Your task to perform on an android device: turn off wifi Image 0: 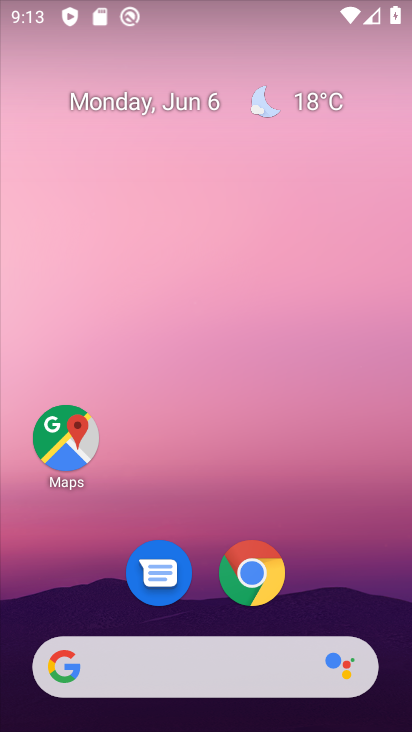
Step 0: click (260, 584)
Your task to perform on an android device: turn off wifi Image 1: 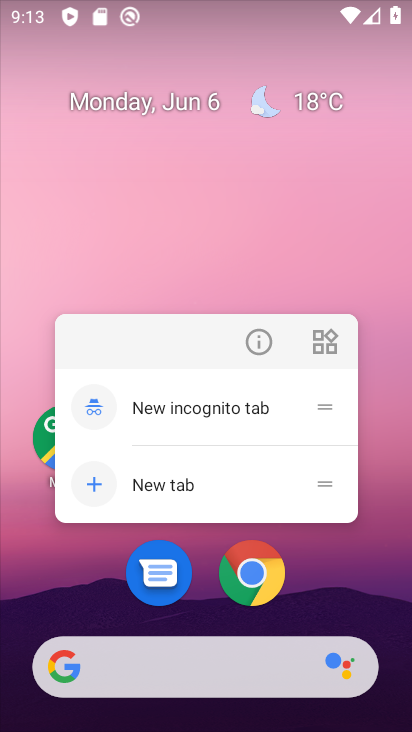
Step 1: click (254, 582)
Your task to perform on an android device: turn off wifi Image 2: 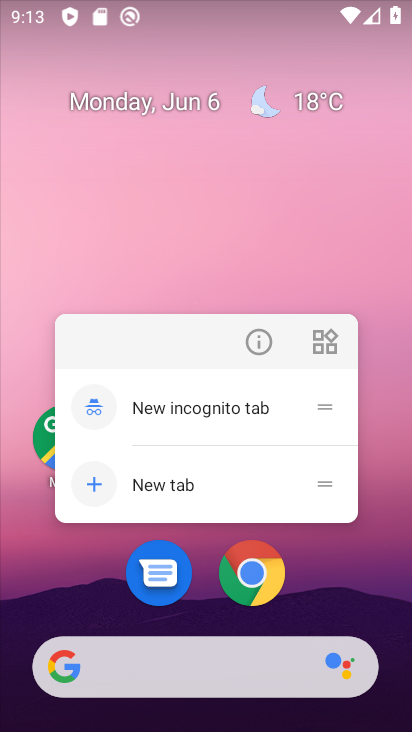
Step 2: drag from (69, 17) to (60, 379)
Your task to perform on an android device: turn off wifi Image 3: 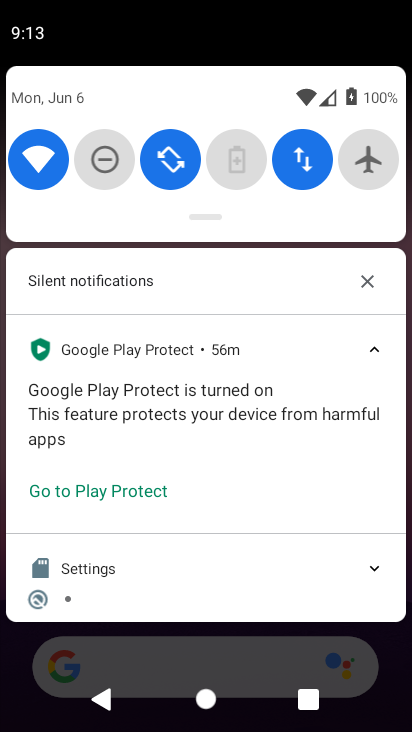
Step 3: click (45, 158)
Your task to perform on an android device: turn off wifi Image 4: 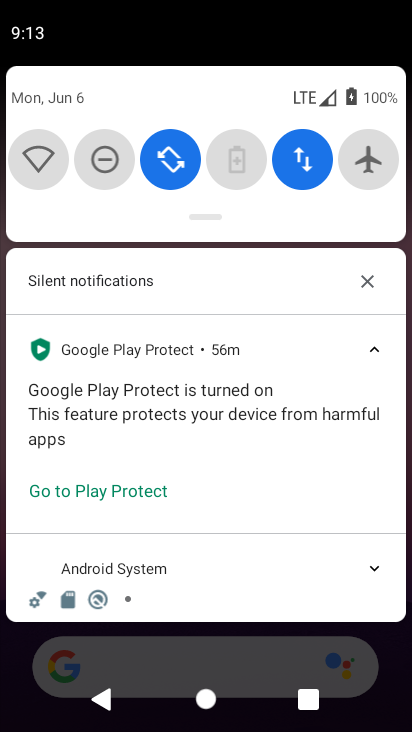
Step 4: task complete